Your task to perform on an android device: change notifications settings Image 0: 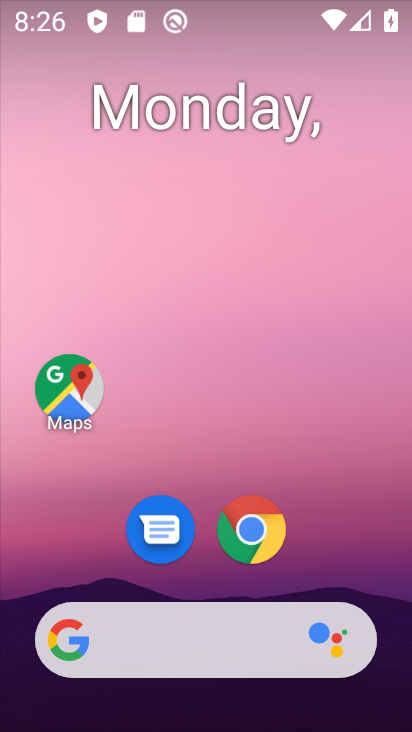
Step 0: drag from (7, 670) to (321, 129)
Your task to perform on an android device: change notifications settings Image 1: 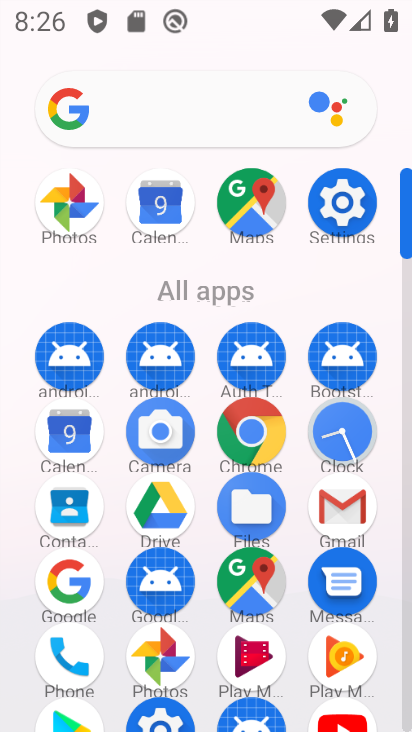
Step 1: click (340, 202)
Your task to perform on an android device: change notifications settings Image 2: 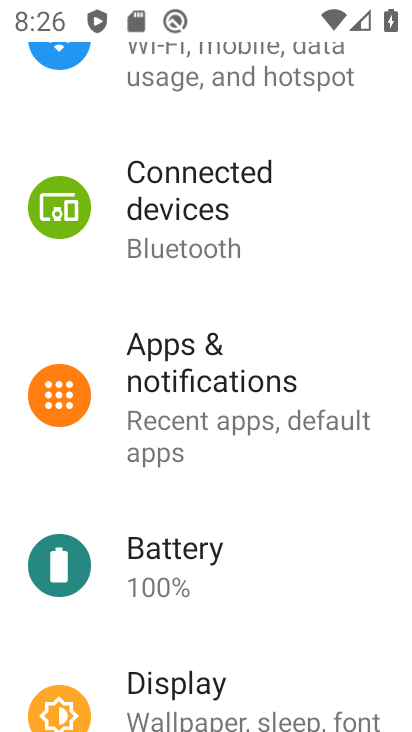
Step 2: click (228, 387)
Your task to perform on an android device: change notifications settings Image 3: 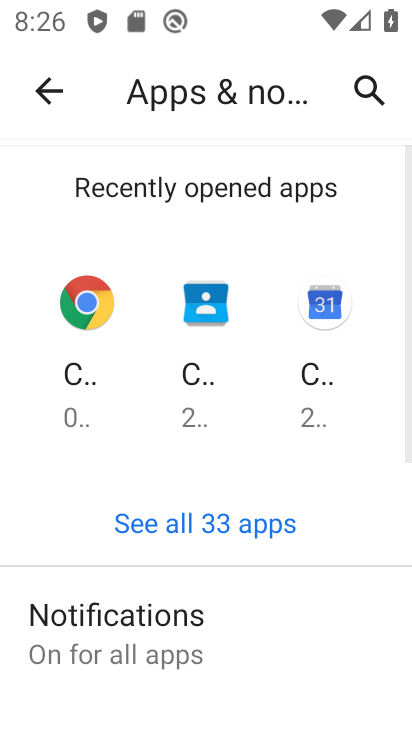
Step 3: click (216, 641)
Your task to perform on an android device: change notifications settings Image 4: 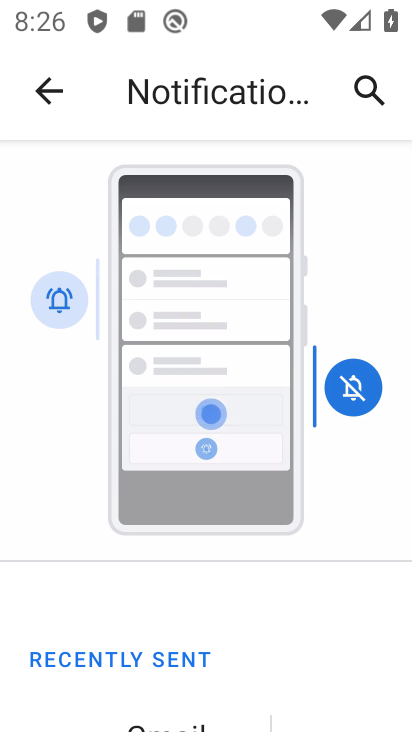
Step 4: task complete